Your task to perform on an android device: Open sound settings Image 0: 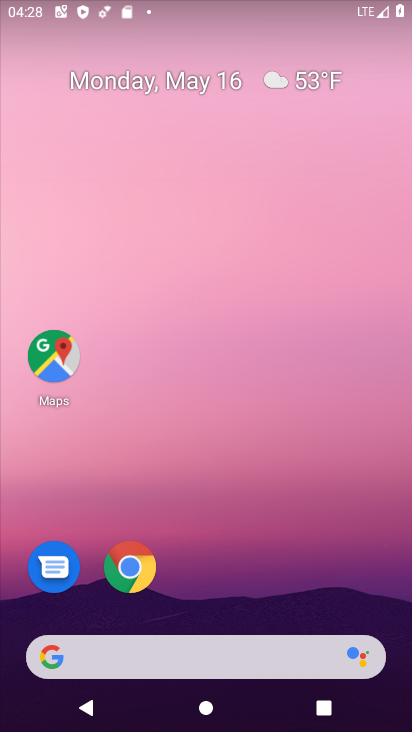
Step 0: drag from (154, 620) to (332, 0)
Your task to perform on an android device: Open sound settings Image 1: 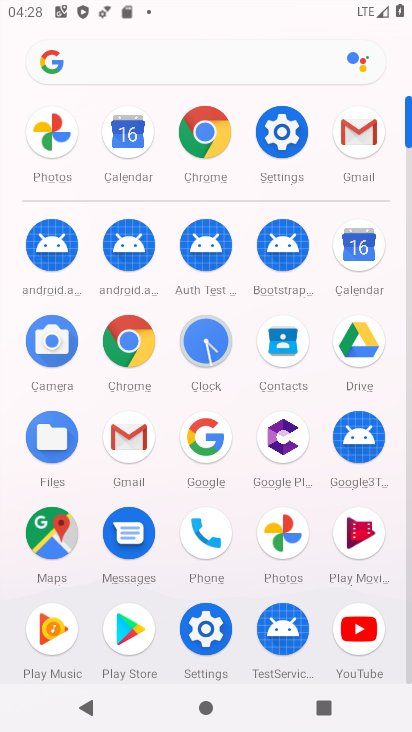
Step 1: click (275, 136)
Your task to perform on an android device: Open sound settings Image 2: 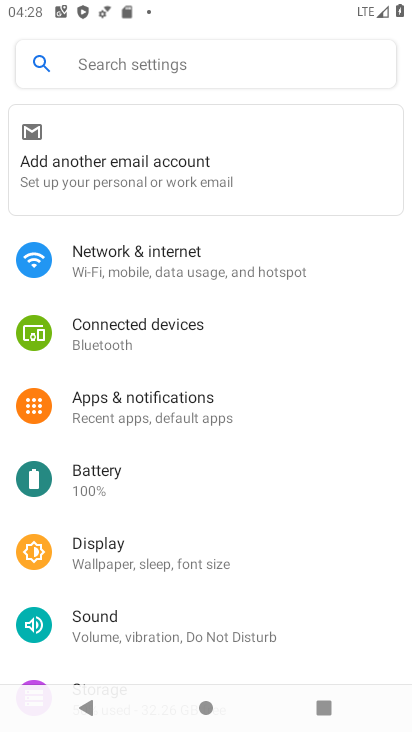
Step 2: drag from (210, 603) to (221, 88)
Your task to perform on an android device: Open sound settings Image 3: 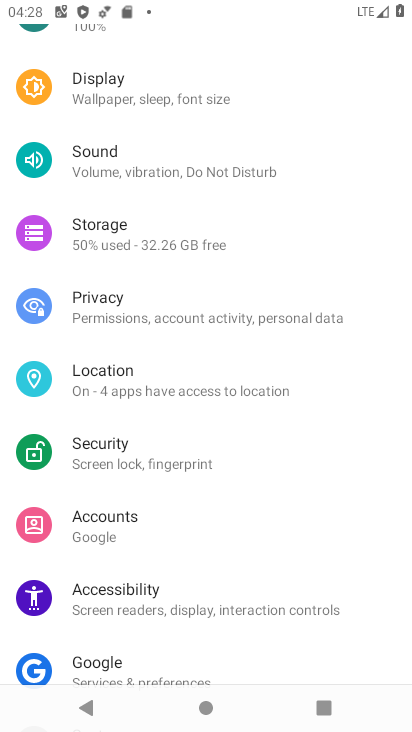
Step 3: click (138, 156)
Your task to perform on an android device: Open sound settings Image 4: 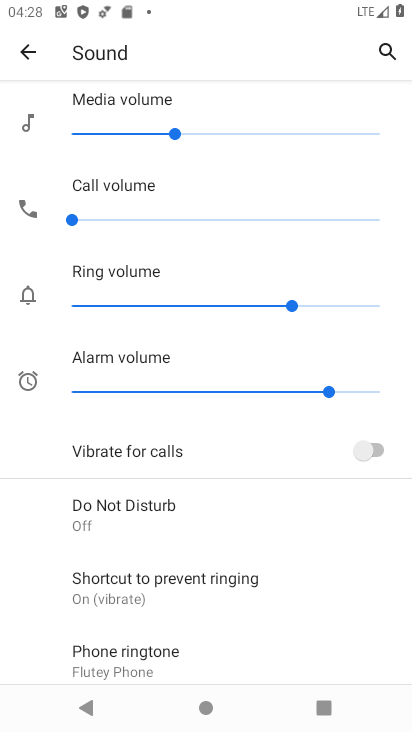
Step 4: task complete